Your task to perform on an android device: Go to CNN.com Image 0: 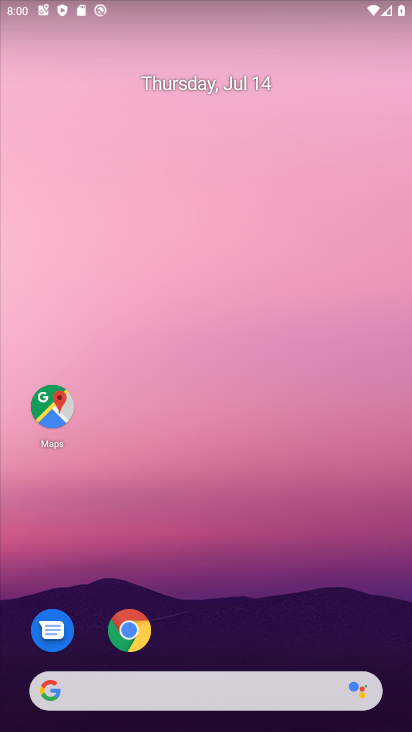
Step 0: click (131, 635)
Your task to perform on an android device: Go to CNN.com Image 1: 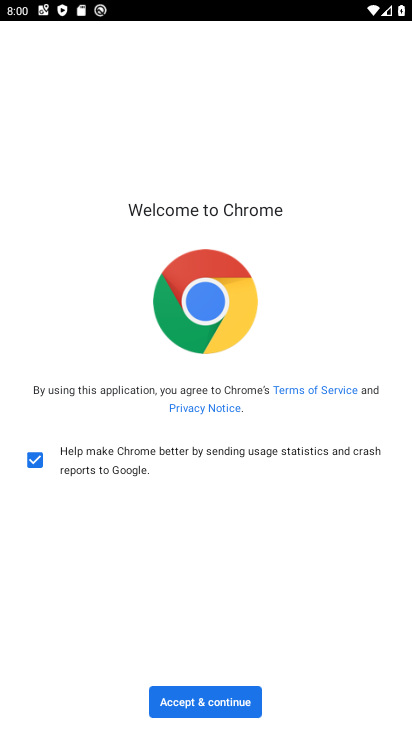
Step 1: click (221, 702)
Your task to perform on an android device: Go to CNN.com Image 2: 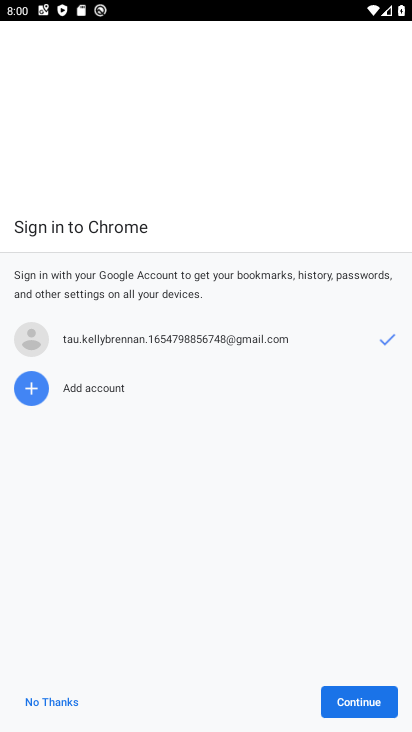
Step 2: click (347, 708)
Your task to perform on an android device: Go to CNN.com Image 3: 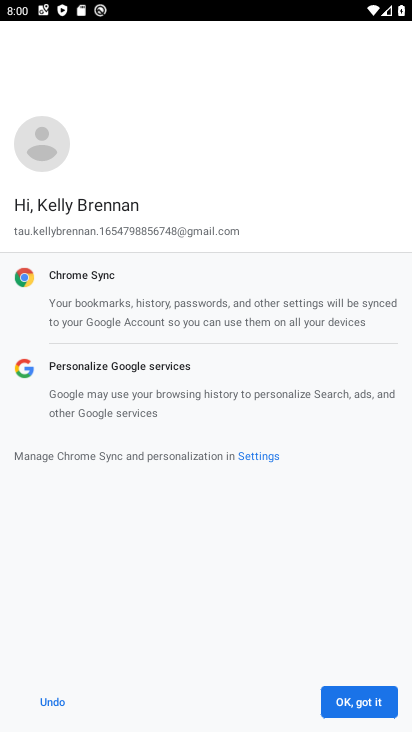
Step 3: click (347, 708)
Your task to perform on an android device: Go to CNN.com Image 4: 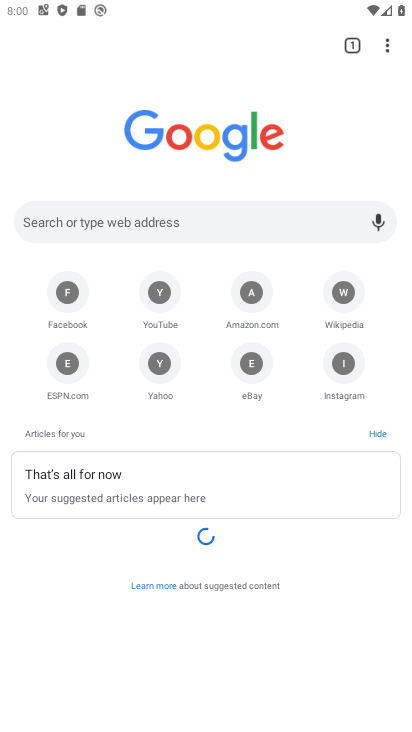
Step 4: click (167, 220)
Your task to perform on an android device: Go to CNN.com Image 5: 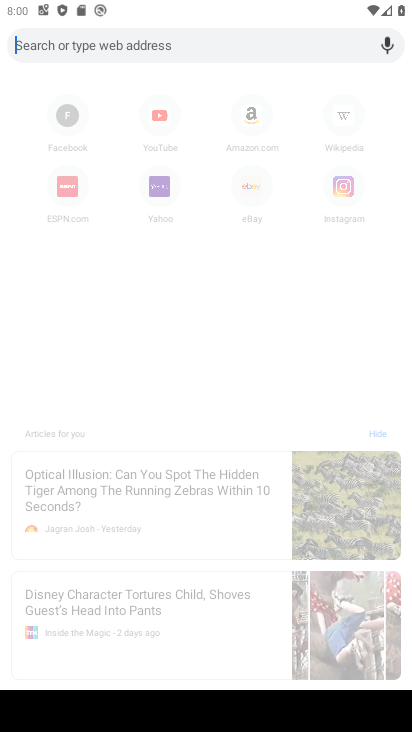
Step 5: type "CNN.com"
Your task to perform on an android device: Go to CNN.com Image 6: 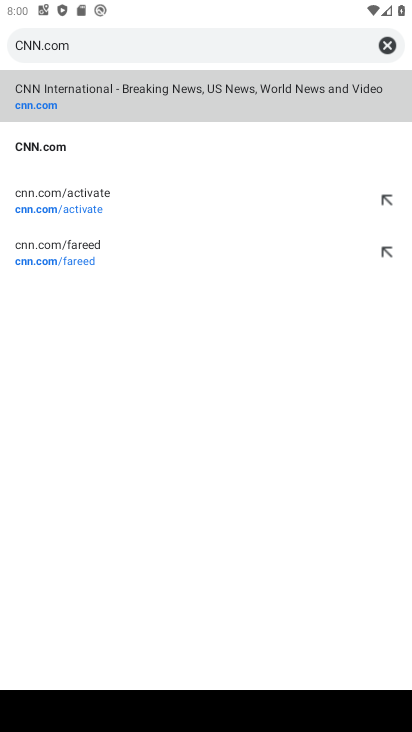
Step 6: click (181, 110)
Your task to perform on an android device: Go to CNN.com Image 7: 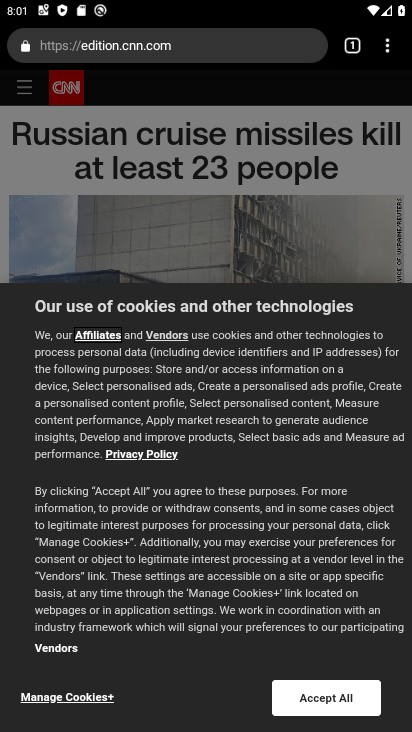
Step 7: task complete